Your task to perform on an android device: Go to notification settings Image 0: 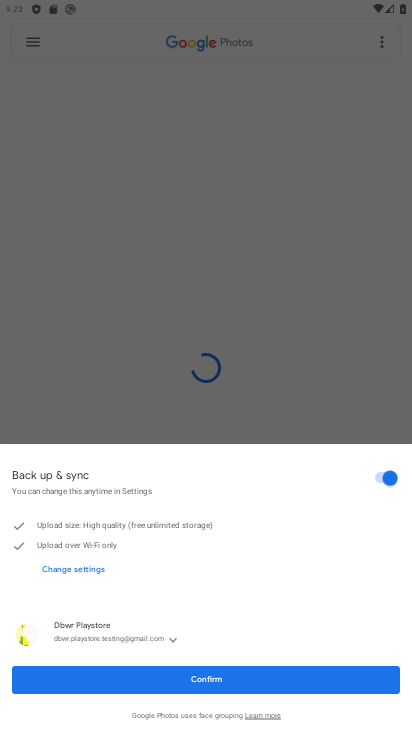
Step 0: press home button
Your task to perform on an android device: Go to notification settings Image 1: 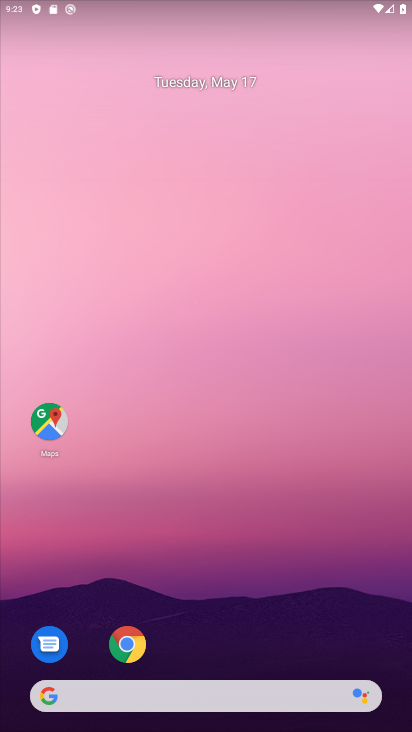
Step 1: drag from (265, 626) to (181, 6)
Your task to perform on an android device: Go to notification settings Image 2: 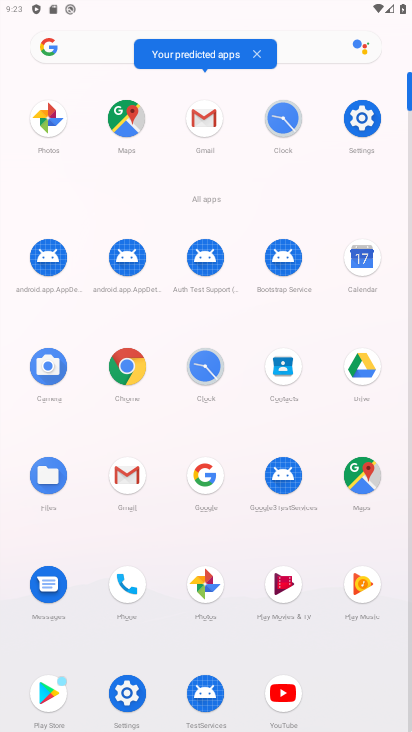
Step 2: click (359, 122)
Your task to perform on an android device: Go to notification settings Image 3: 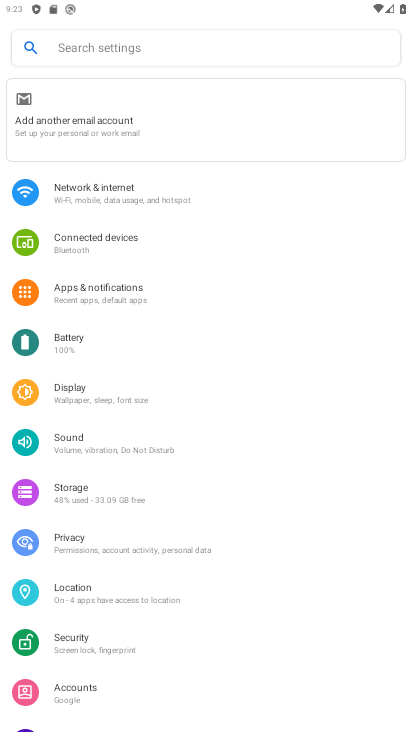
Step 3: click (250, 293)
Your task to perform on an android device: Go to notification settings Image 4: 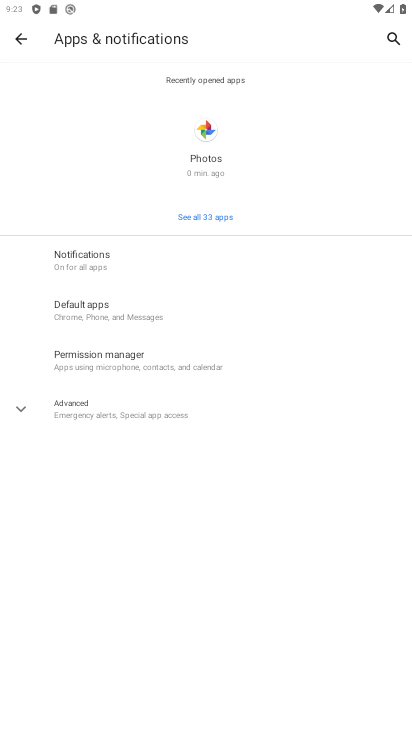
Step 4: click (161, 251)
Your task to perform on an android device: Go to notification settings Image 5: 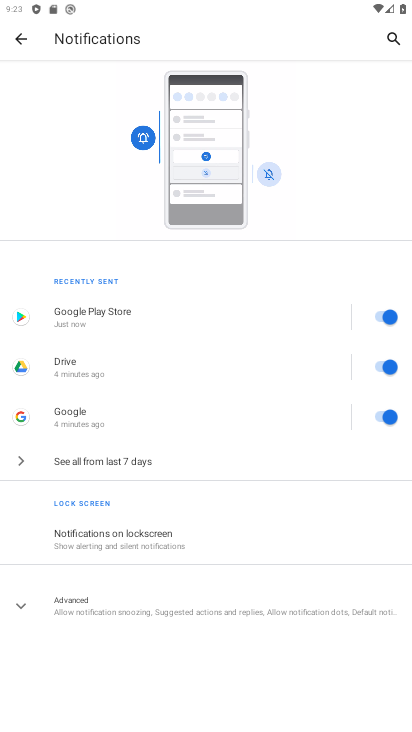
Step 5: task complete